Your task to perform on an android device: Open Google Chrome and open the bookmarks view Image 0: 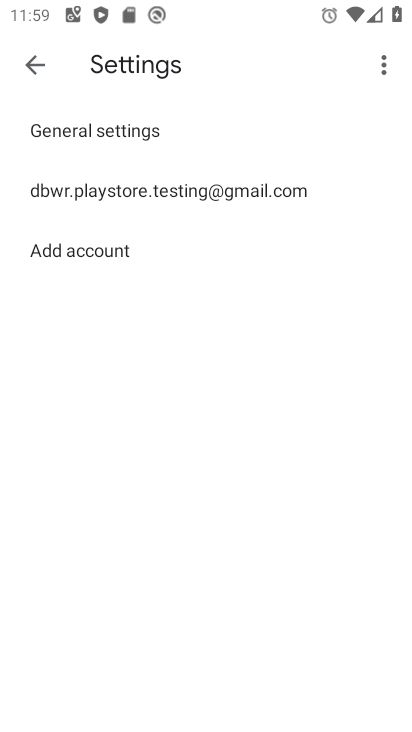
Step 0: press home button
Your task to perform on an android device: Open Google Chrome and open the bookmarks view Image 1: 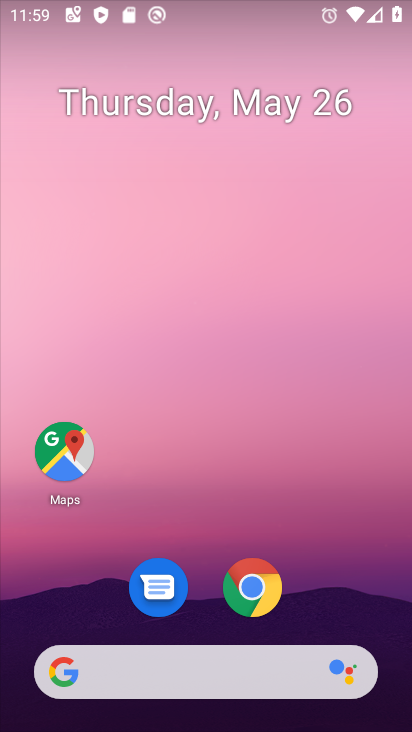
Step 1: drag from (266, 694) to (216, 214)
Your task to perform on an android device: Open Google Chrome and open the bookmarks view Image 2: 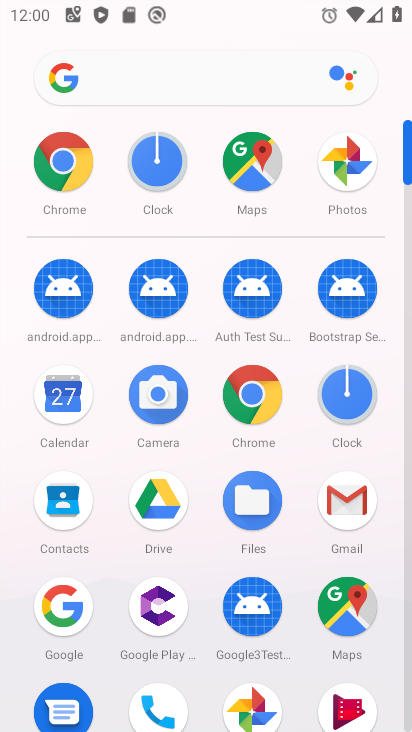
Step 2: click (253, 403)
Your task to perform on an android device: Open Google Chrome and open the bookmarks view Image 3: 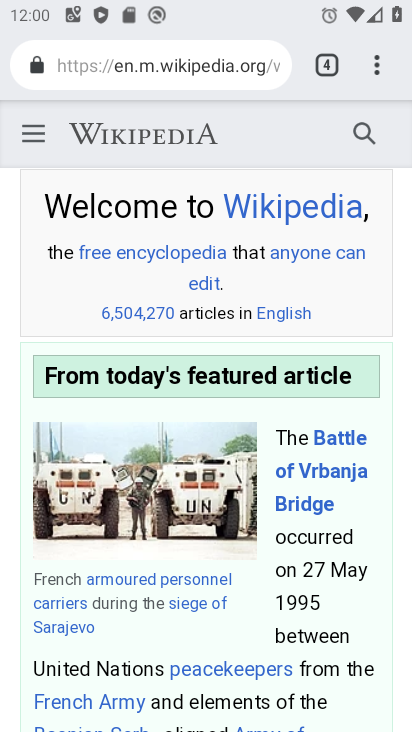
Step 3: click (377, 74)
Your task to perform on an android device: Open Google Chrome and open the bookmarks view Image 4: 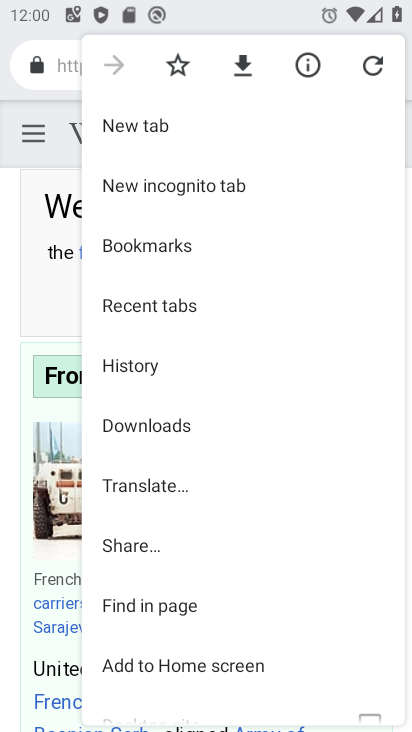
Step 4: drag from (168, 622) to (158, 430)
Your task to perform on an android device: Open Google Chrome and open the bookmarks view Image 5: 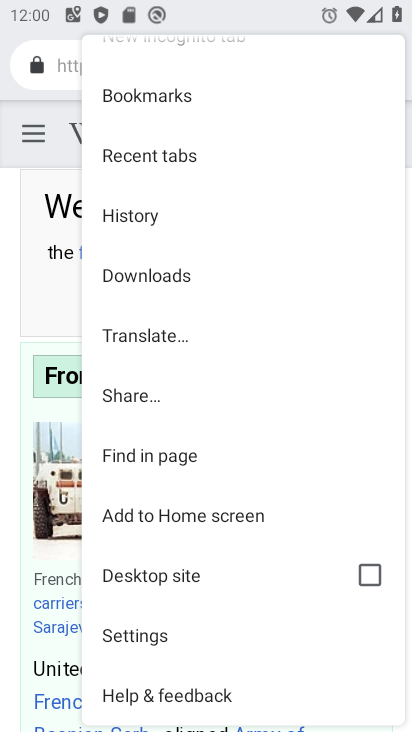
Step 5: click (180, 104)
Your task to perform on an android device: Open Google Chrome and open the bookmarks view Image 6: 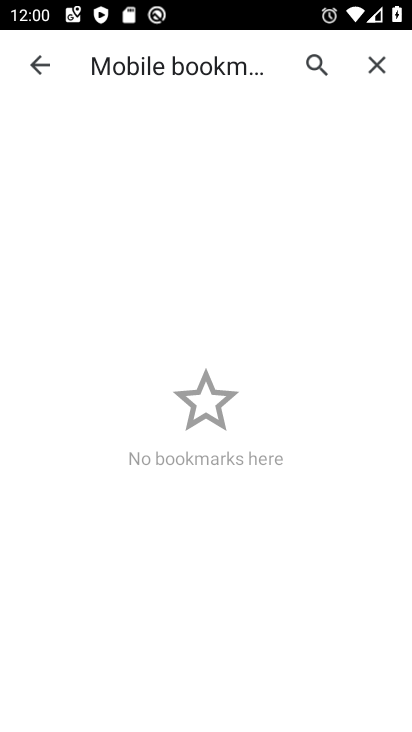
Step 6: task complete